Your task to perform on an android device: read, delete, or share a saved page in the chrome app Image 0: 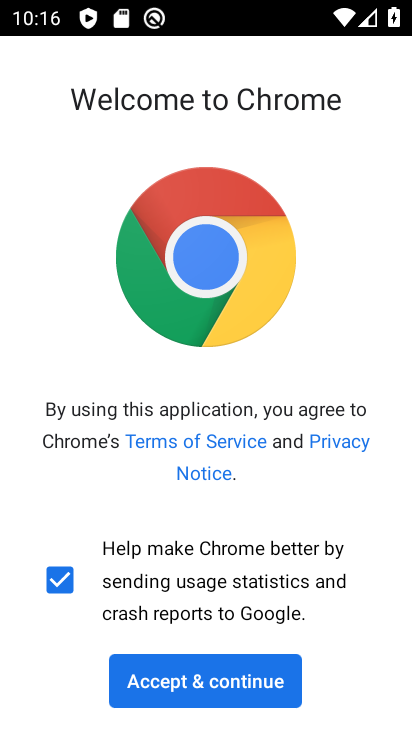
Step 0: click (231, 681)
Your task to perform on an android device: read, delete, or share a saved page in the chrome app Image 1: 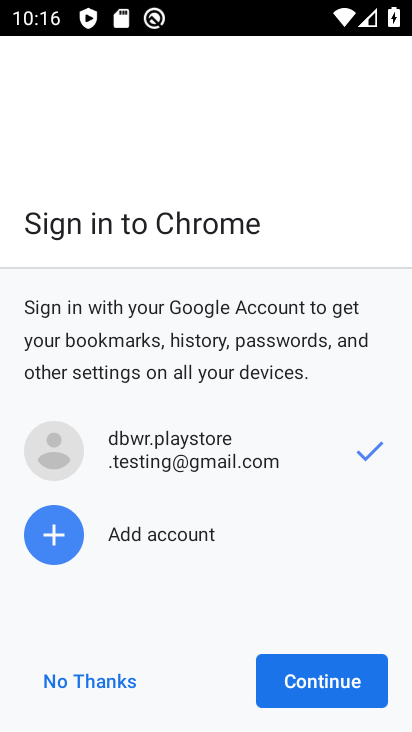
Step 1: click (327, 678)
Your task to perform on an android device: read, delete, or share a saved page in the chrome app Image 2: 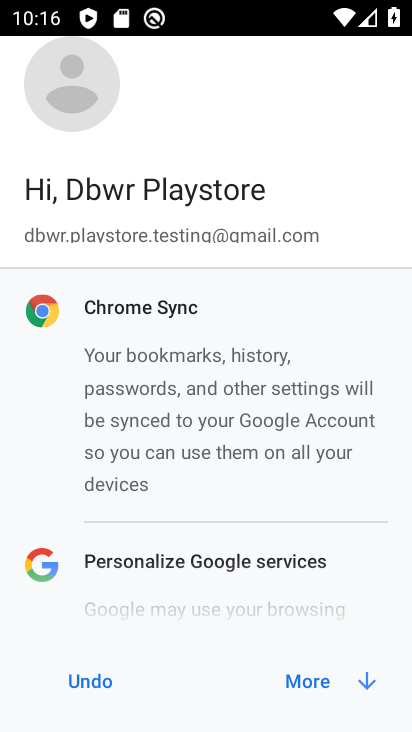
Step 2: click (326, 677)
Your task to perform on an android device: read, delete, or share a saved page in the chrome app Image 3: 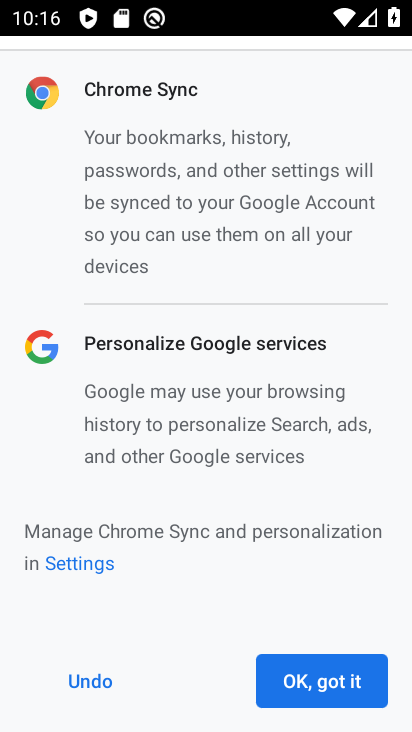
Step 3: click (311, 683)
Your task to perform on an android device: read, delete, or share a saved page in the chrome app Image 4: 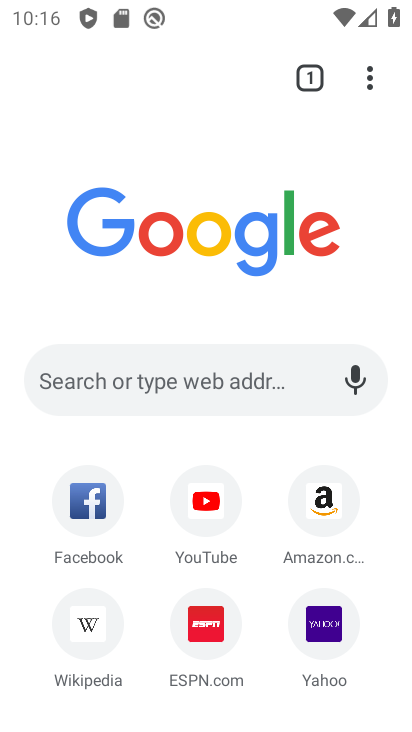
Step 4: click (373, 85)
Your task to perform on an android device: read, delete, or share a saved page in the chrome app Image 5: 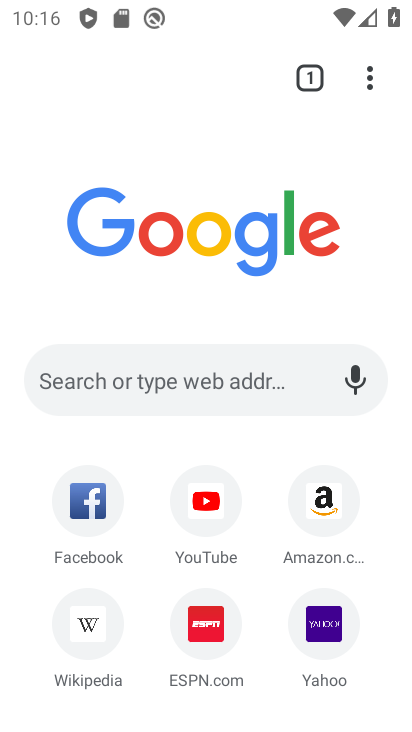
Step 5: click (373, 85)
Your task to perform on an android device: read, delete, or share a saved page in the chrome app Image 6: 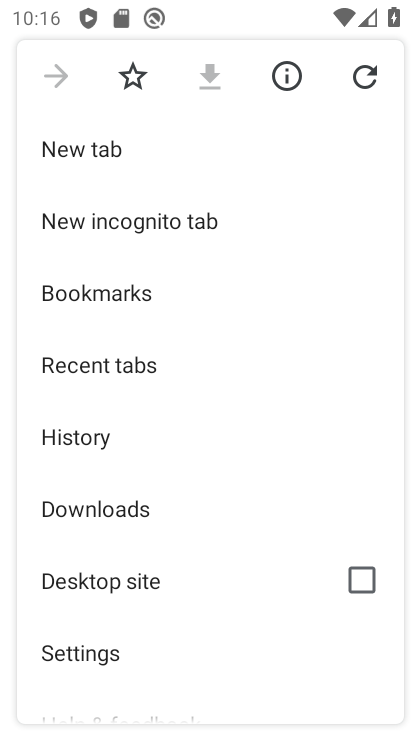
Step 6: click (153, 303)
Your task to perform on an android device: read, delete, or share a saved page in the chrome app Image 7: 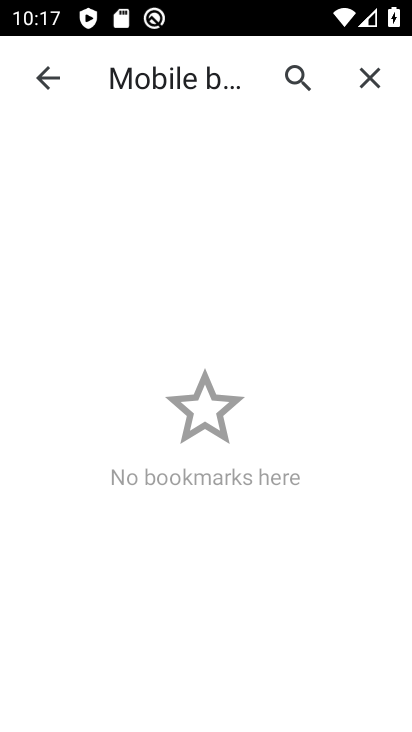
Step 7: task complete